Your task to perform on an android device: turn off notifications settings in the gmail app Image 0: 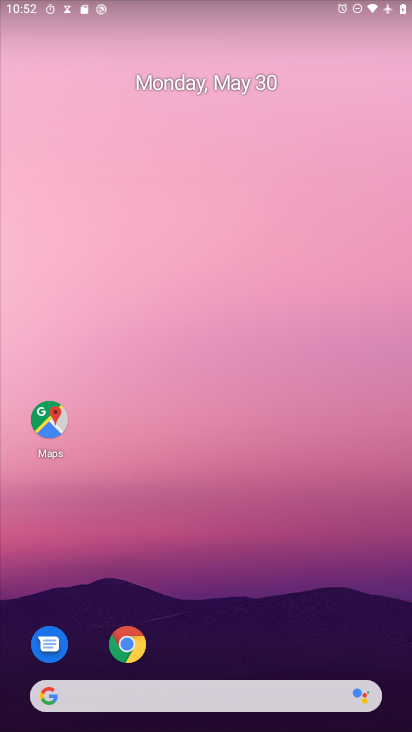
Step 0: drag from (221, 644) to (284, 54)
Your task to perform on an android device: turn off notifications settings in the gmail app Image 1: 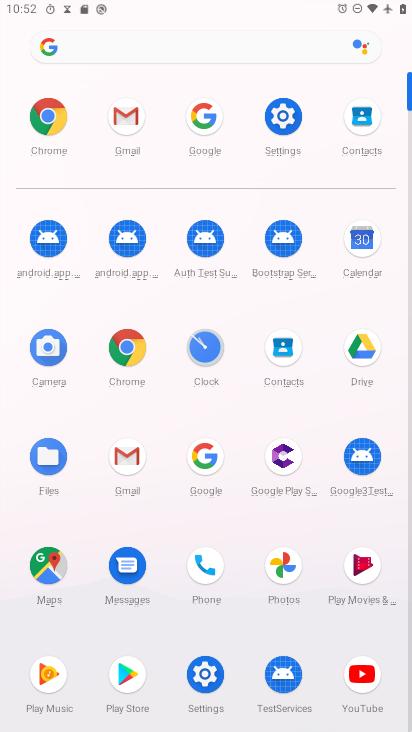
Step 1: click (128, 119)
Your task to perform on an android device: turn off notifications settings in the gmail app Image 2: 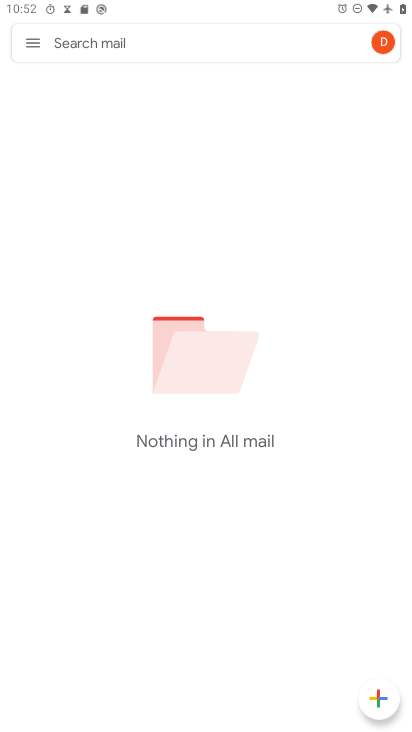
Step 2: click (38, 41)
Your task to perform on an android device: turn off notifications settings in the gmail app Image 3: 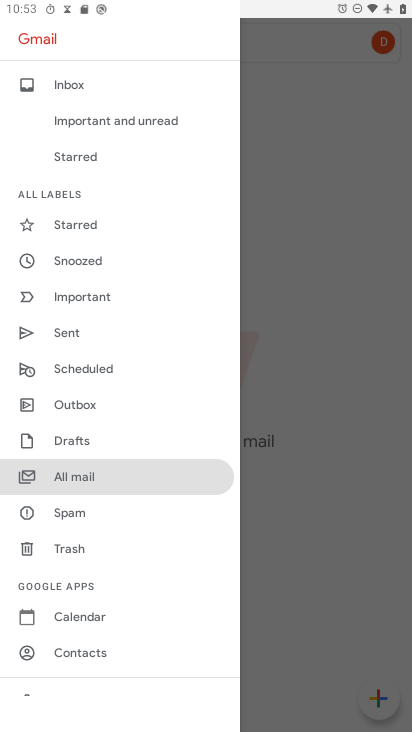
Step 3: drag from (85, 629) to (109, 56)
Your task to perform on an android device: turn off notifications settings in the gmail app Image 4: 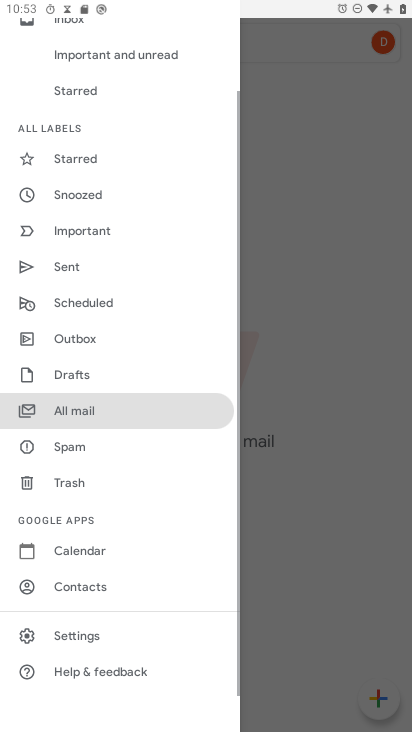
Step 4: click (60, 641)
Your task to perform on an android device: turn off notifications settings in the gmail app Image 5: 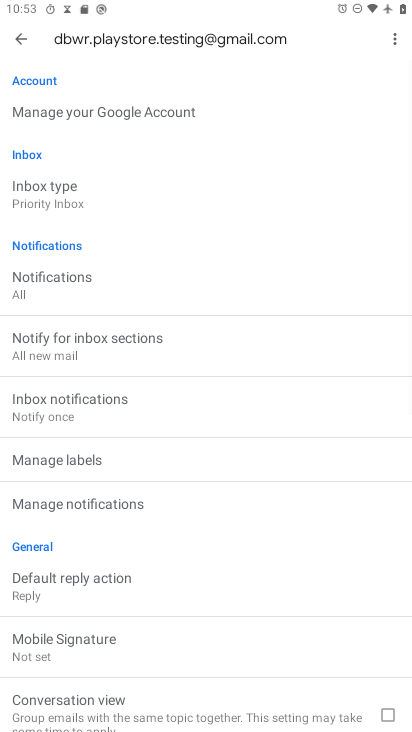
Step 5: click (47, 286)
Your task to perform on an android device: turn off notifications settings in the gmail app Image 6: 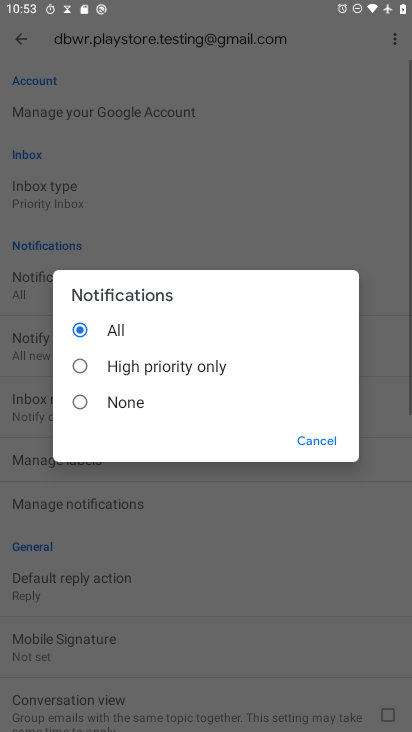
Step 6: click (104, 402)
Your task to perform on an android device: turn off notifications settings in the gmail app Image 7: 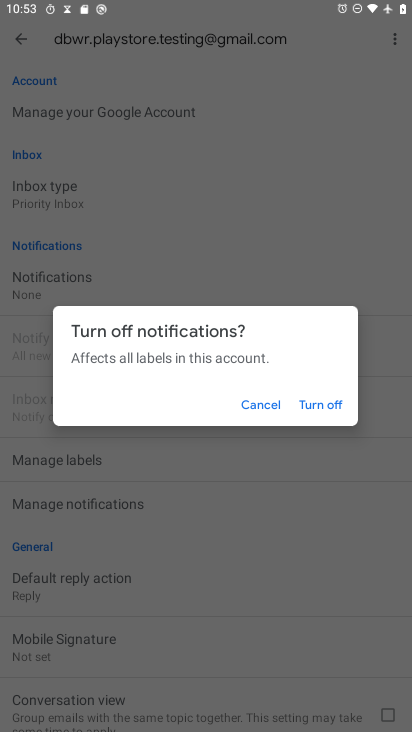
Step 7: click (320, 411)
Your task to perform on an android device: turn off notifications settings in the gmail app Image 8: 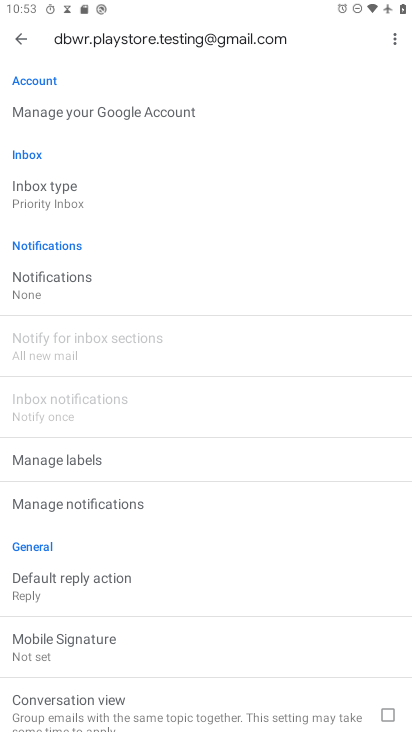
Step 8: task complete